Your task to perform on an android device: see tabs open on other devices in the chrome app Image 0: 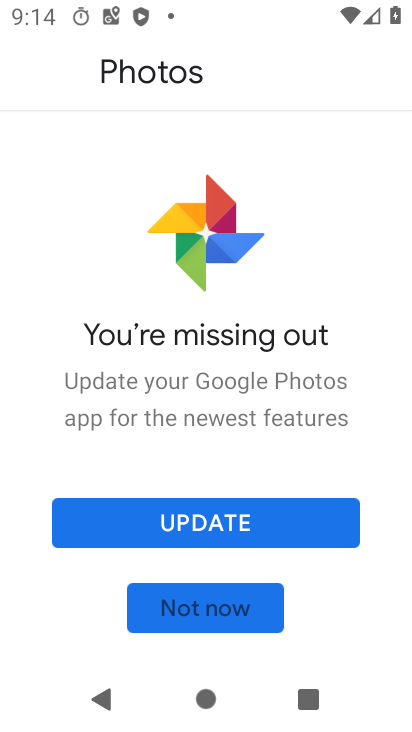
Step 0: press home button
Your task to perform on an android device: see tabs open on other devices in the chrome app Image 1: 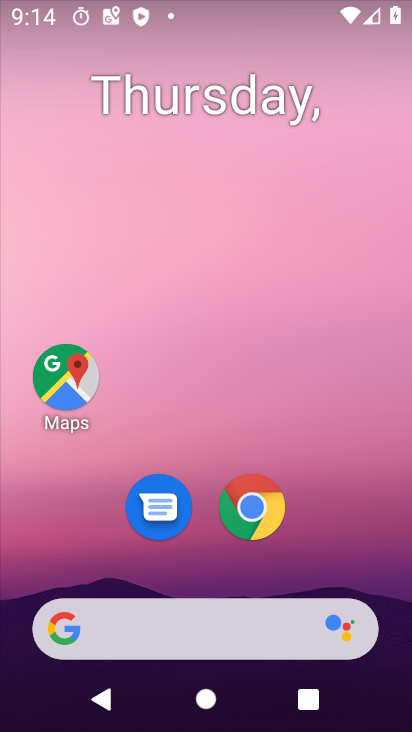
Step 1: click (264, 515)
Your task to perform on an android device: see tabs open on other devices in the chrome app Image 2: 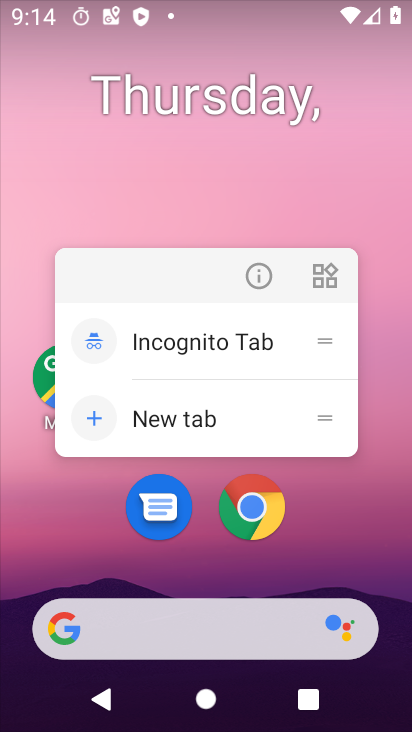
Step 2: click (245, 503)
Your task to perform on an android device: see tabs open on other devices in the chrome app Image 3: 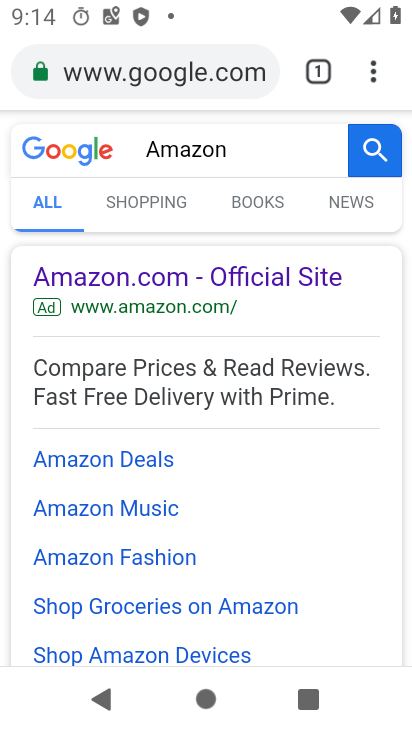
Step 3: click (376, 84)
Your task to perform on an android device: see tabs open on other devices in the chrome app Image 4: 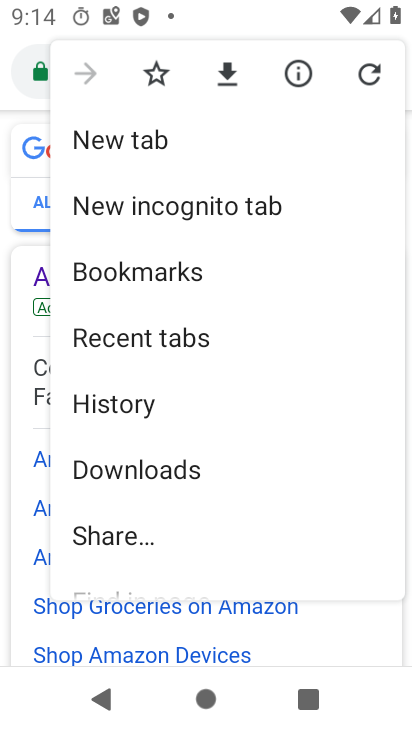
Step 4: drag from (147, 494) to (179, 227)
Your task to perform on an android device: see tabs open on other devices in the chrome app Image 5: 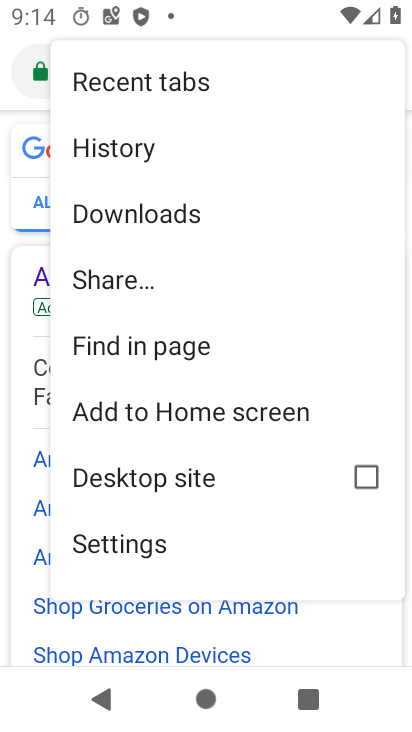
Step 5: drag from (144, 523) to (182, 198)
Your task to perform on an android device: see tabs open on other devices in the chrome app Image 6: 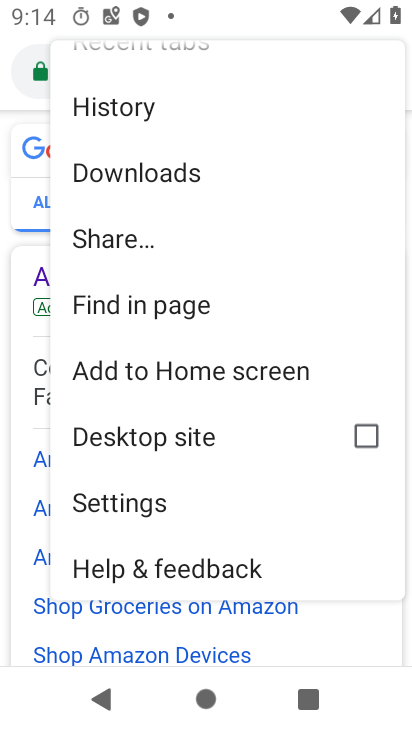
Step 6: click (143, 506)
Your task to perform on an android device: see tabs open on other devices in the chrome app Image 7: 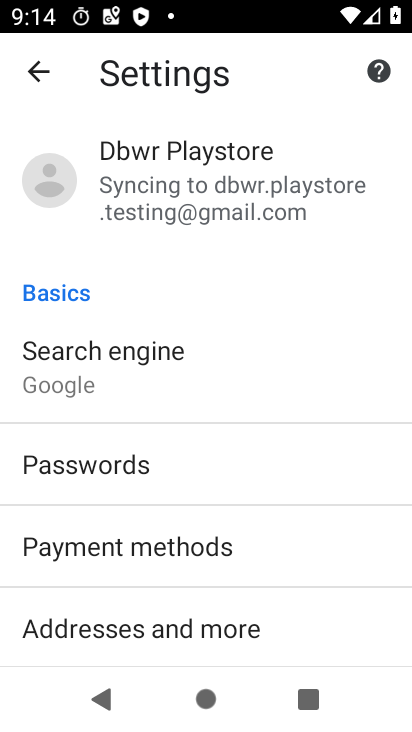
Step 7: click (42, 75)
Your task to perform on an android device: see tabs open on other devices in the chrome app Image 8: 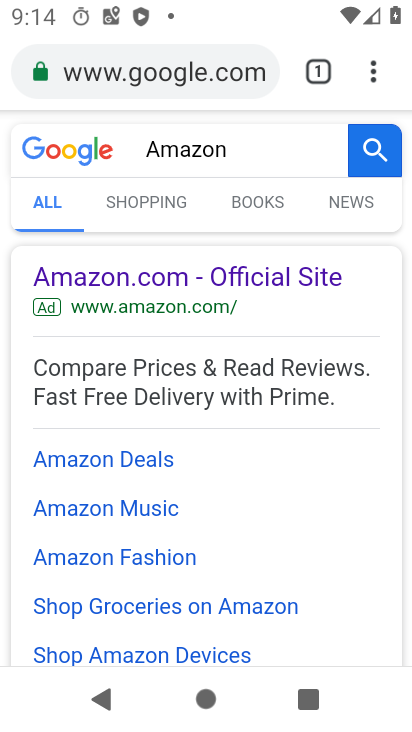
Step 8: click (376, 73)
Your task to perform on an android device: see tabs open on other devices in the chrome app Image 9: 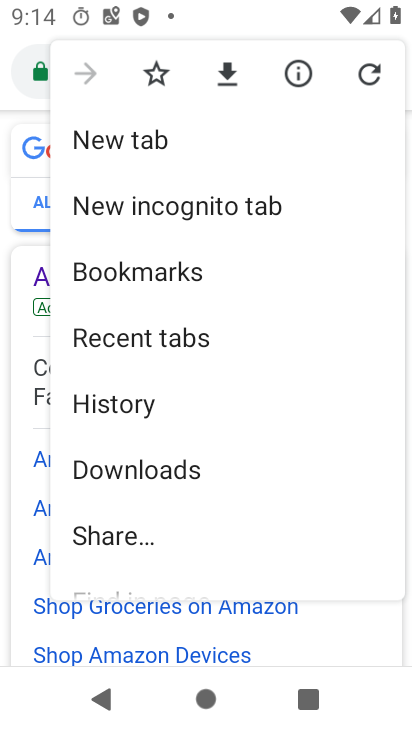
Step 9: click (187, 341)
Your task to perform on an android device: see tabs open on other devices in the chrome app Image 10: 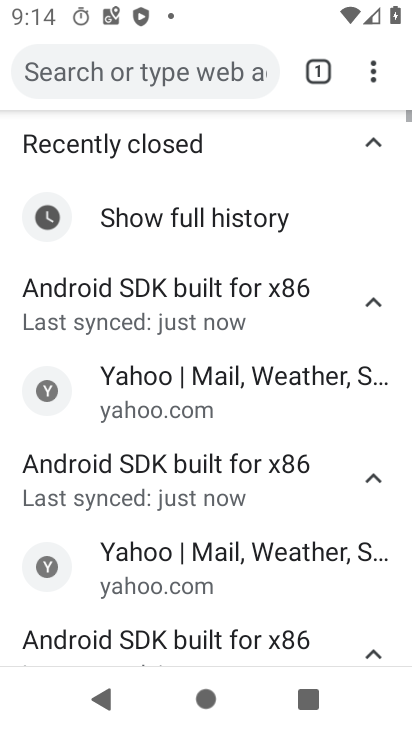
Step 10: task complete